Your task to perform on an android device: toggle data saver in the chrome app Image 0: 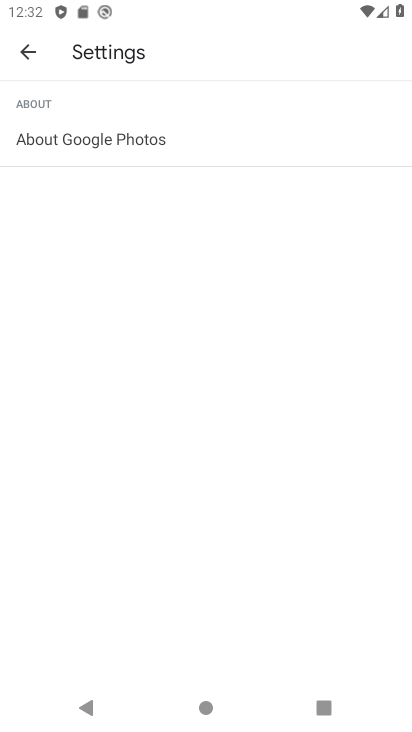
Step 0: press back button
Your task to perform on an android device: toggle data saver in the chrome app Image 1: 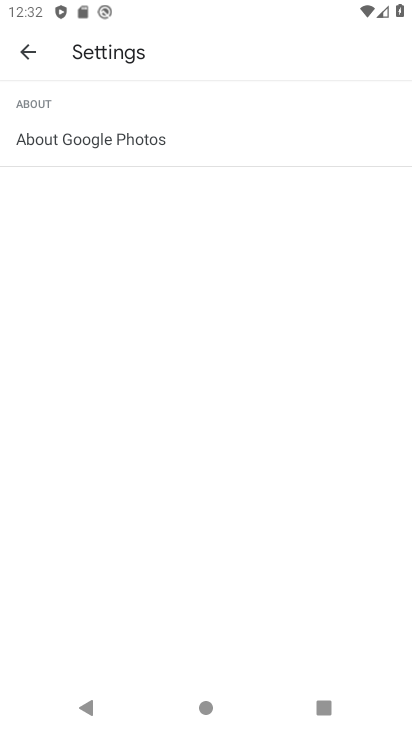
Step 1: press home button
Your task to perform on an android device: toggle data saver in the chrome app Image 2: 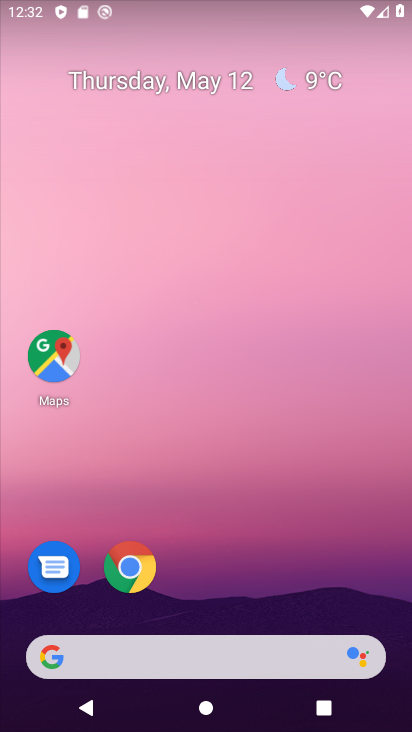
Step 2: click (135, 572)
Your task to perform on an android device: toggle data saver in the chrome app Image 3: 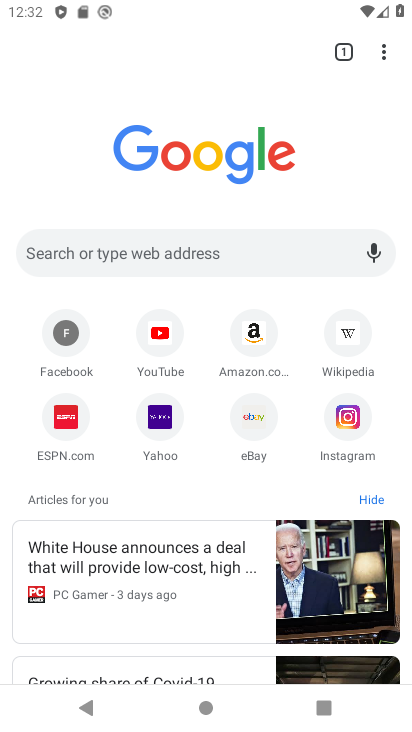
Step 3: drag from (391, 53) to (303, 451)
Your task to perform on an android device: toggle data saver in the chrome app Image 4: 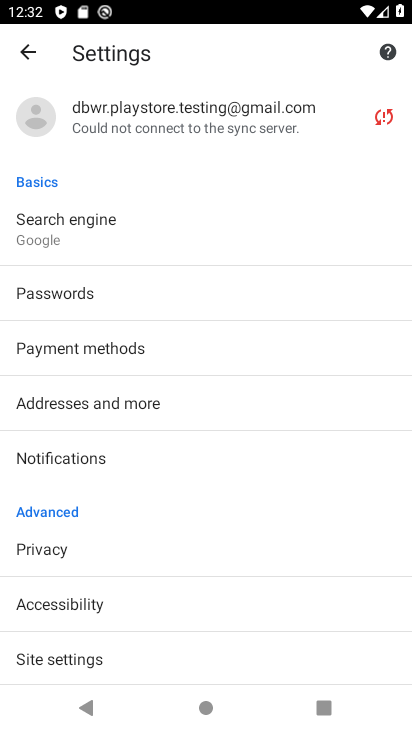
Step 4: drag from (139, 633) to (253, 294)
Your task to perform on an android device: toggle data saver in the chrome app Image 5: 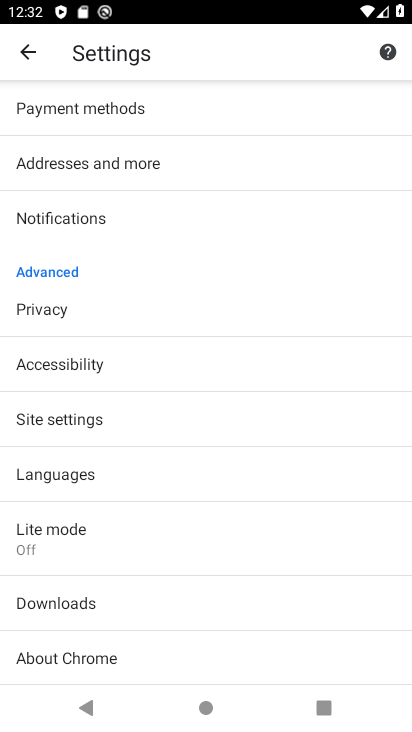
Step 5: click (91, 540)
Your task to perform on an android device: toggle data saver in the chrome app Image 6: 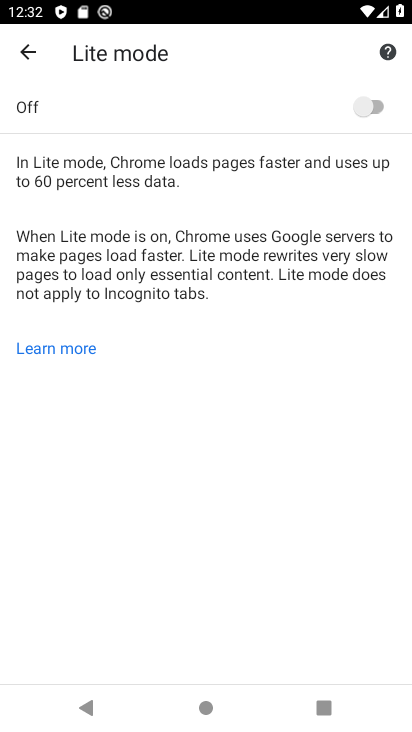
Step 6: click (382, 95)
Your task to perform on an android device: toggle data saver in the chrome app Image 7: 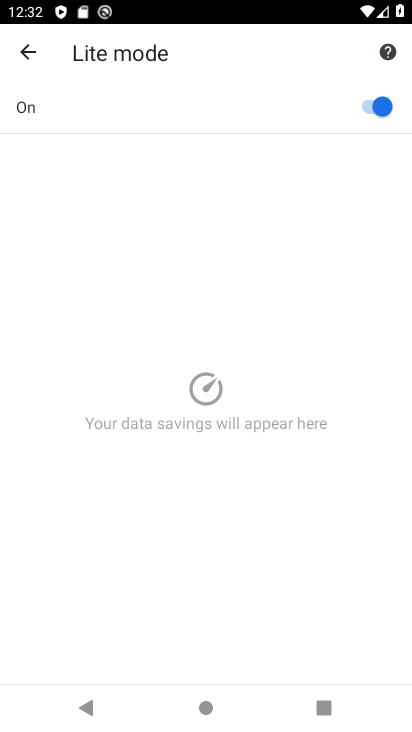
Step 7: task complete